Your task to perform on an android device: Open calendar and show me the second week of next month Image 0: 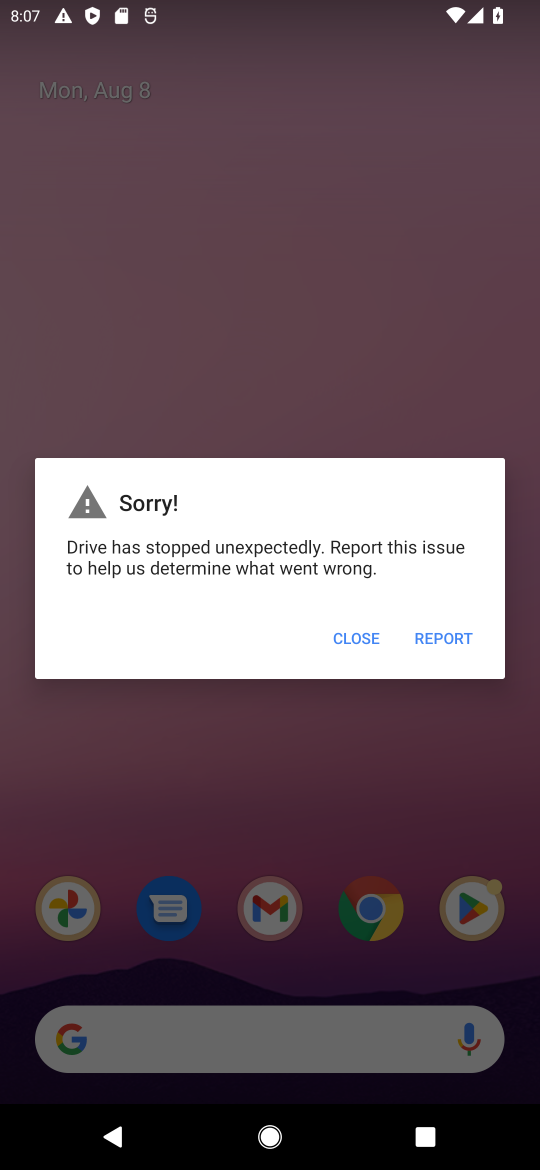
Step 0: click (370, 649)
Your task to perform on an android device: Open calendar and show me the second week of next month Image 1: 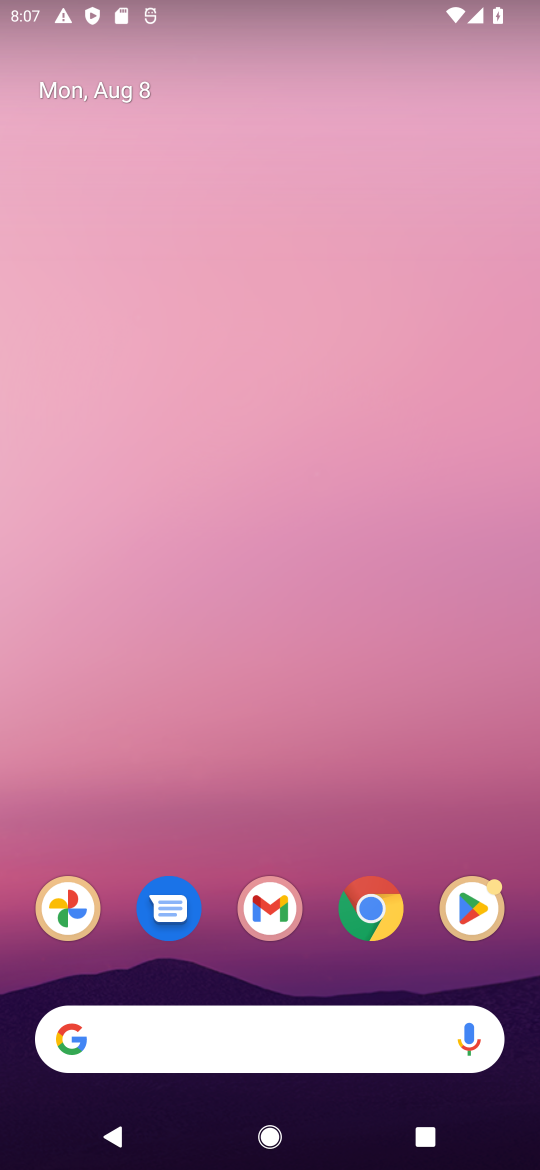
Step 1: click (128, 80)
Your task to perform on an android device: Open calendar and show me the second week of next month Image 2: 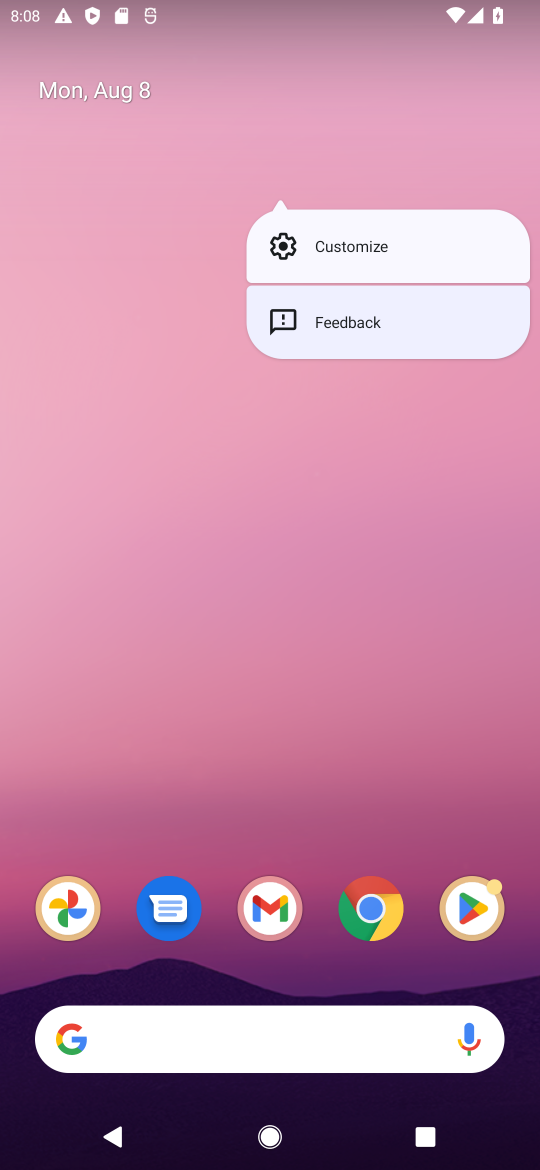
Step 2: click (90, 100)
Your task to perform on an android device: Open calendar and show me the second week of next month Image 3: 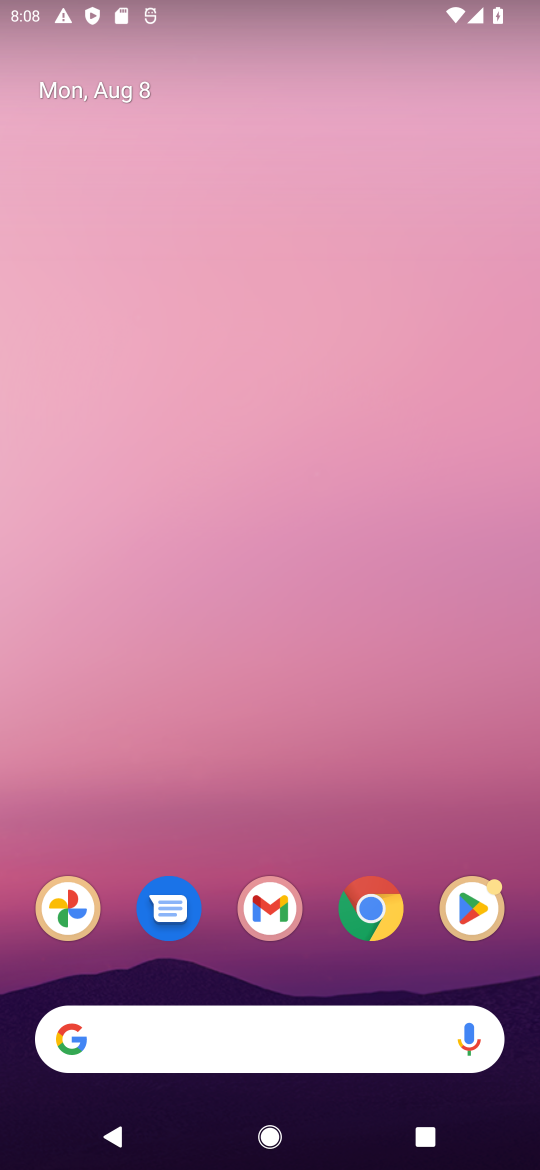
Step 3: click (90, 100)
Your task to perform on an android device: Open calendar and show me the second week of next month Image 4: 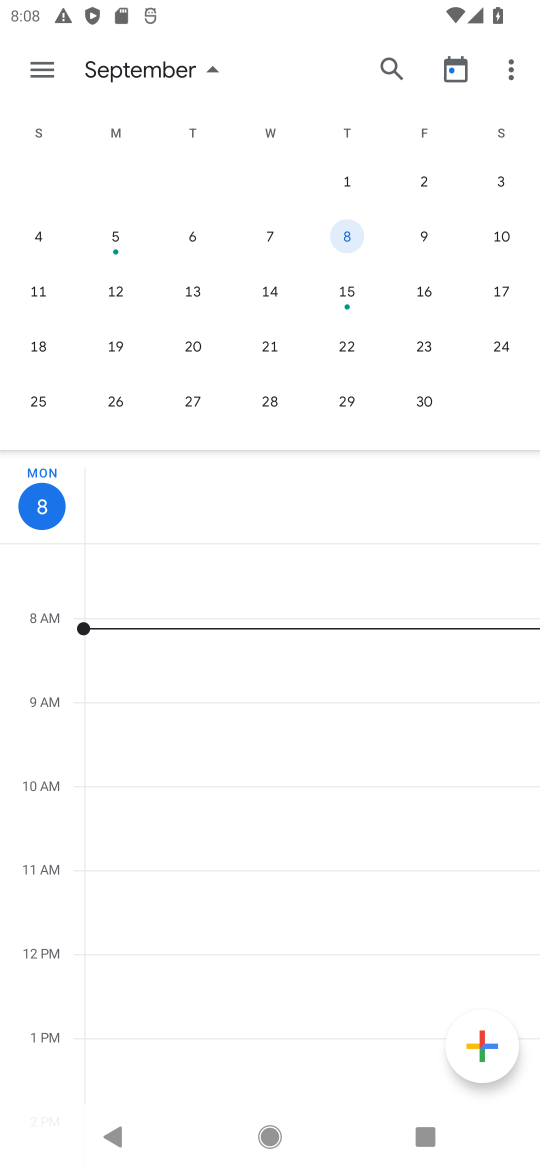
Step 4: task complete